Your task to perform on an android device: Open Yahoo.com Image 0: 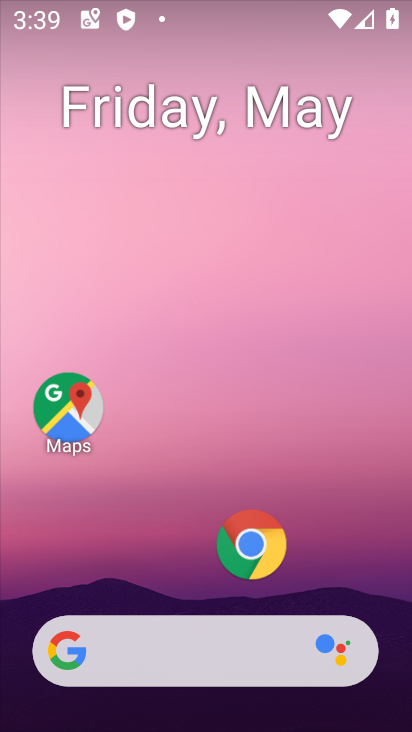
Step 0: click (263, 551)
Your task to perform on an android device: Open Yahoo.com Image 1: 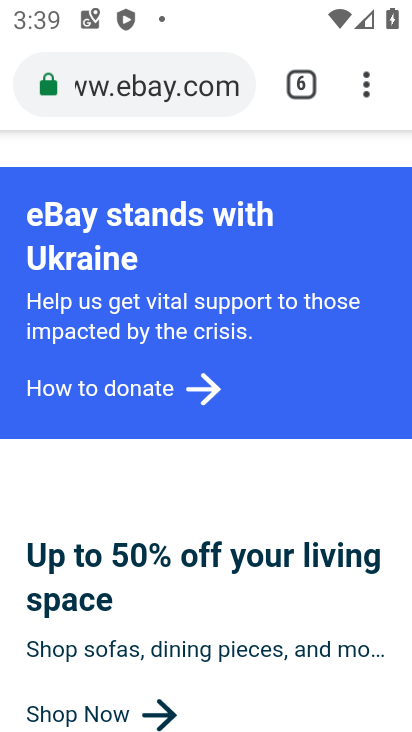
Step 1: click (311, 96)
Your task to perform on an android device: Open Yahoo.com Image 2: 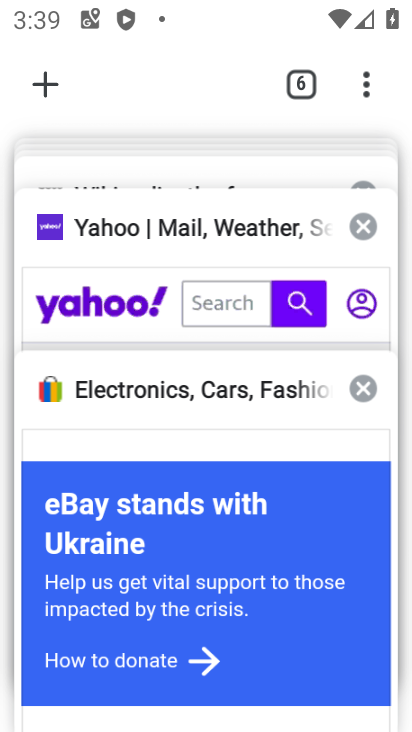
Step 2: click (144, 214)
Your task to perform on an android device: Open Yahoo.com Image 3: 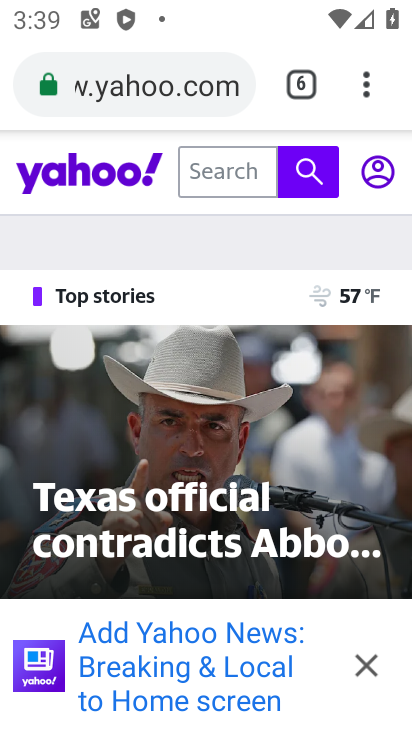
Step 3: task complete